Your task to perform on an android device: Go to Wikipedia Image 0: 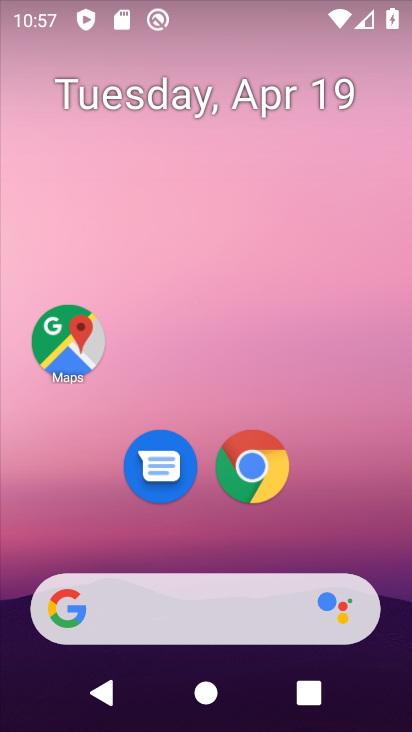
Step 0: click (260, 469)
Your task to perform on an android device: Go to Wikipedia Image 1: 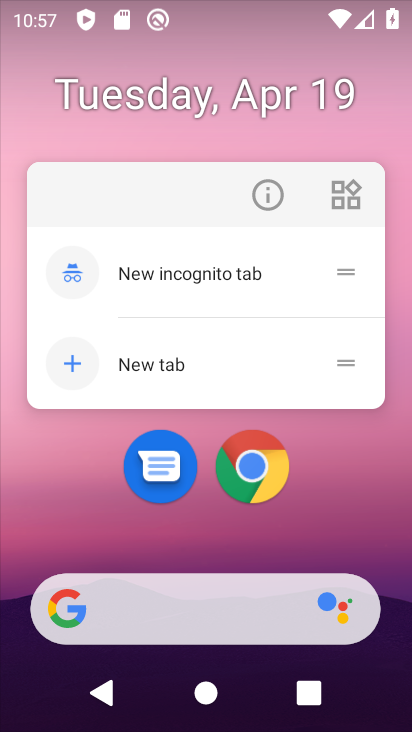
Step 1: click (276, 460)
Your task to perform on an android device: Go to Wikipedia Image 2: 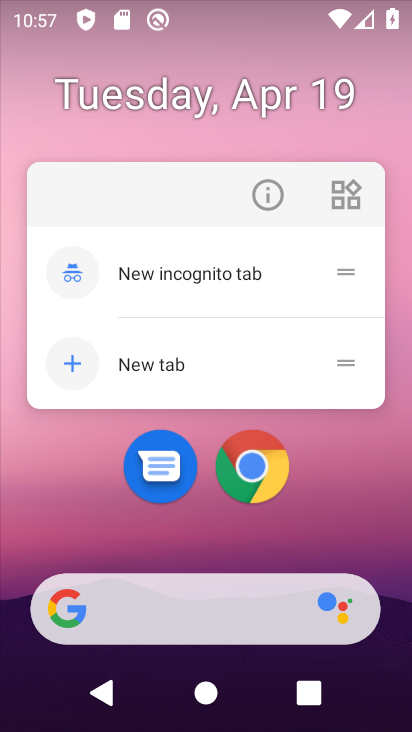
Step 2: click (265, 485)
Your task to perform on an android device: Go to Wikipedia Image 3: 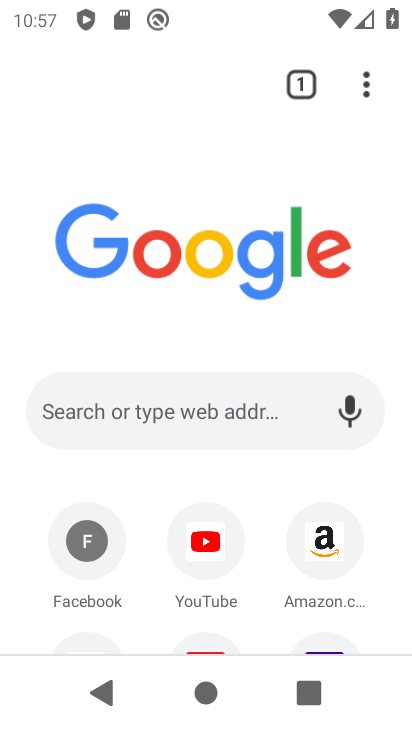
Step 3: drag from (252, 577) to (406, 171)
Your task to perform on an android device: Go to Wikipedia Image 4: 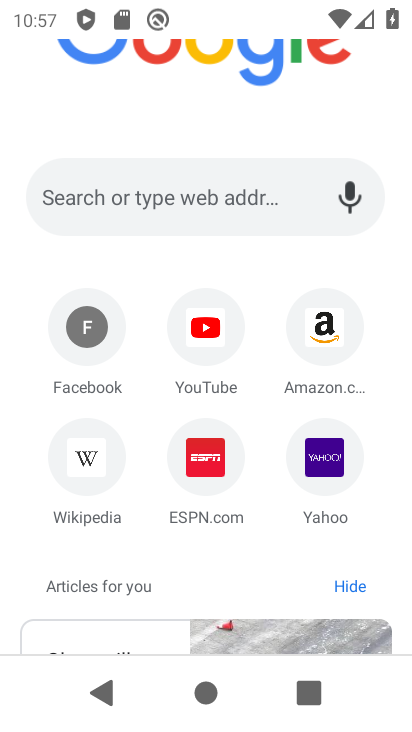
Step 4: click (108, 486)
Your task to perform on an android device: Go to Wikipedia Image 5: 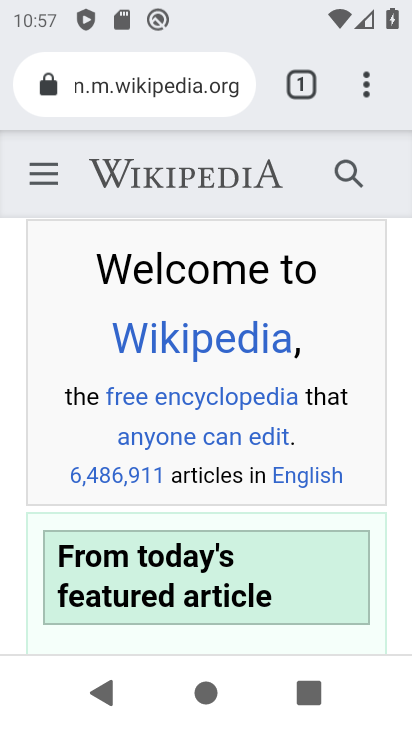
Step 5: task complete